Your task to perform on an android device: turn off location history Image 0: 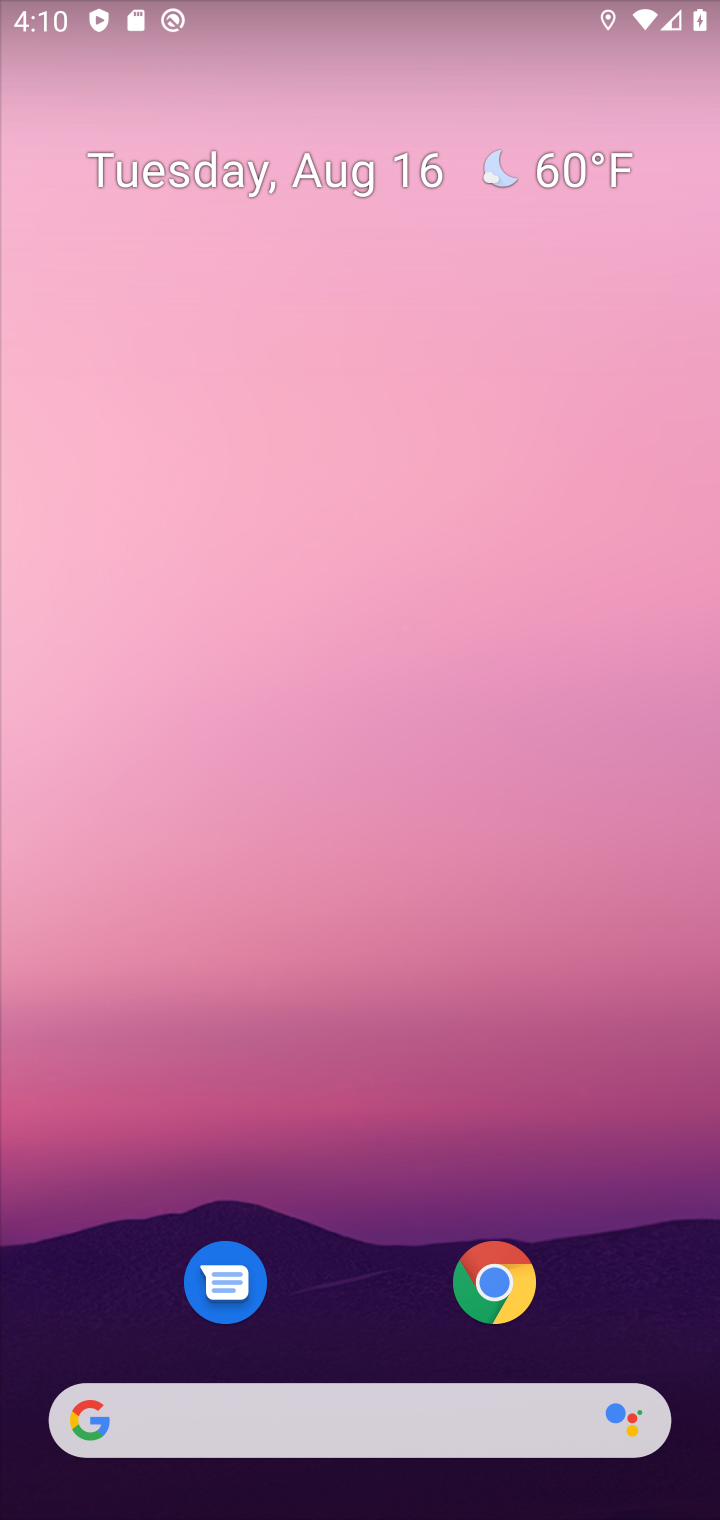
Step 0: drag from (380, 1186) to (594, 167)
Your task to perform on an android device: turn off location history Image 1: 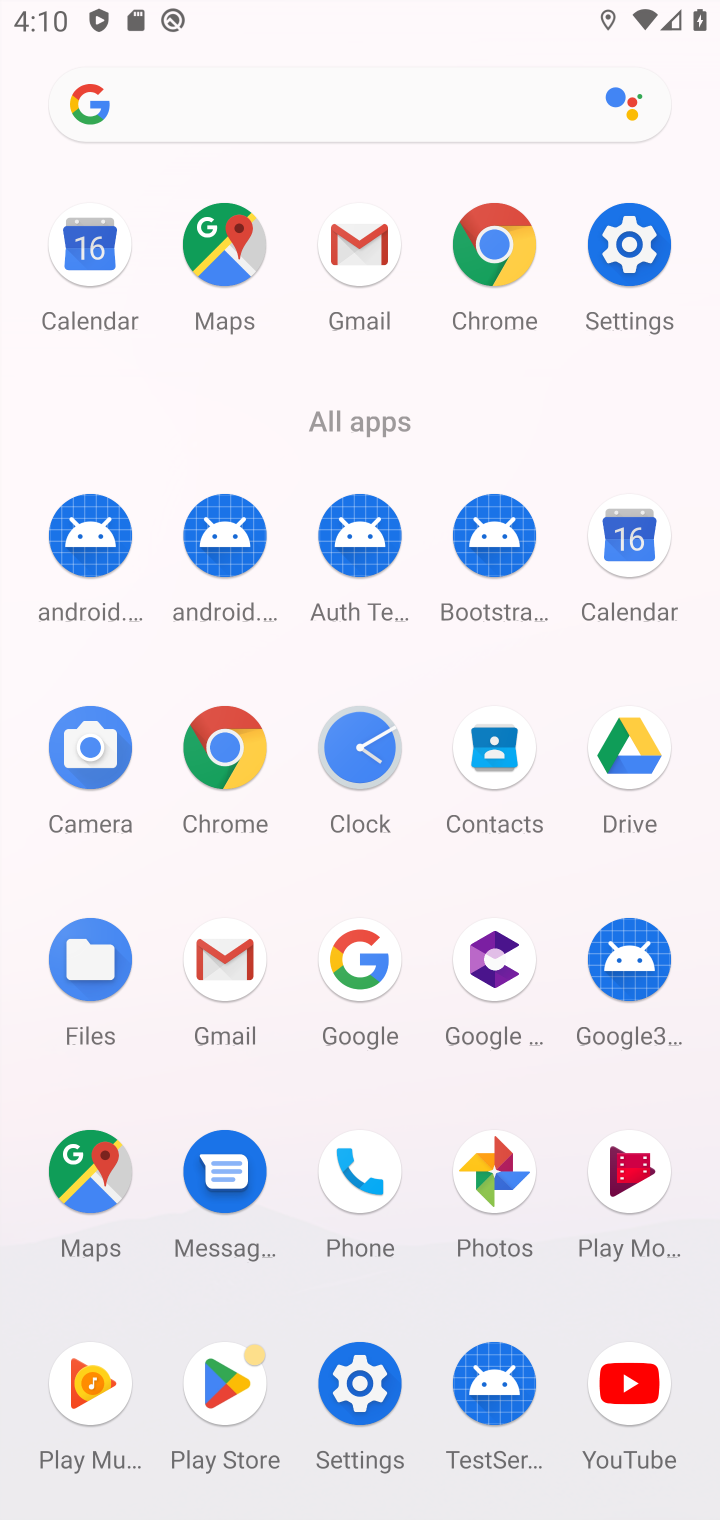
Step 1: click (632, 247)
Your task to perform on an android device: turn off location history Image 2: 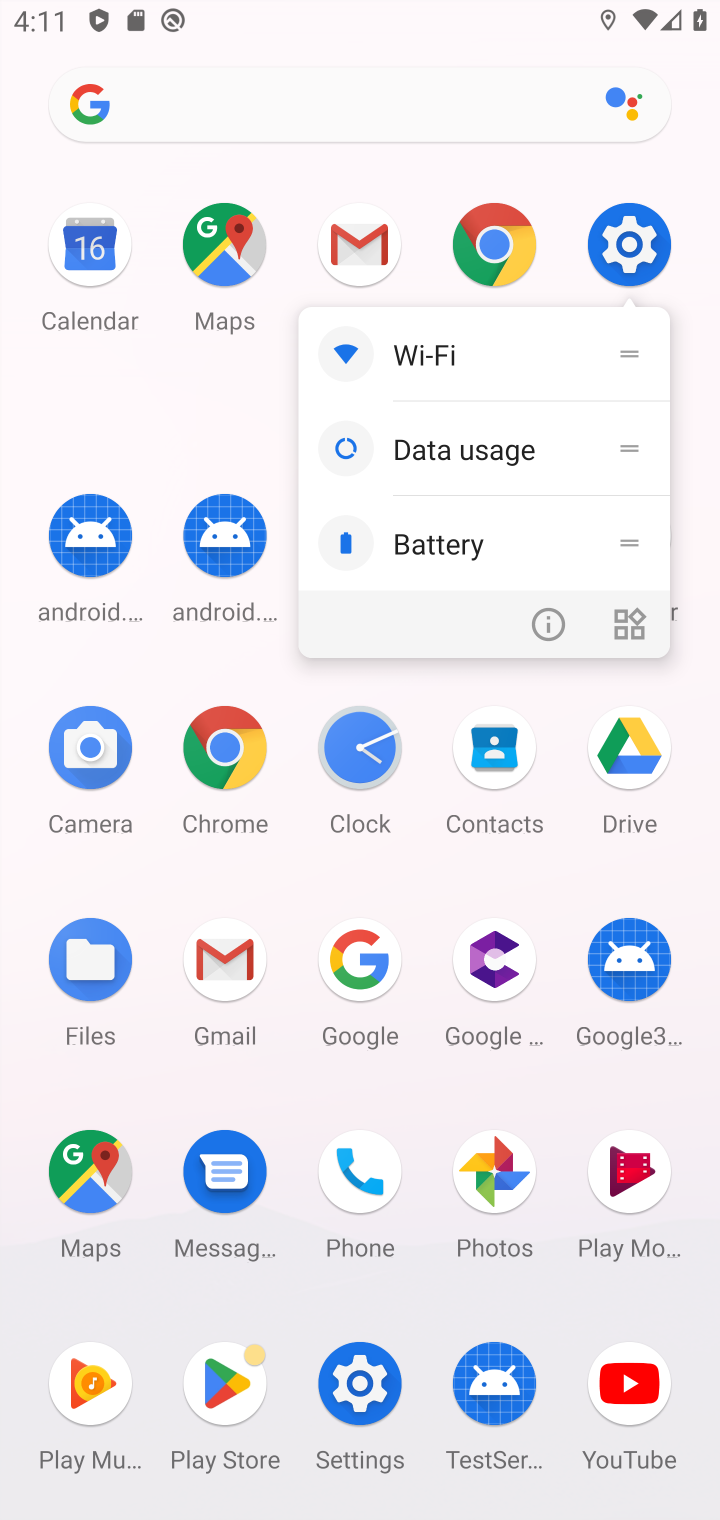
Step 2: click (607, 209)
Your task to perform on an android device: turn off location history Image 3: 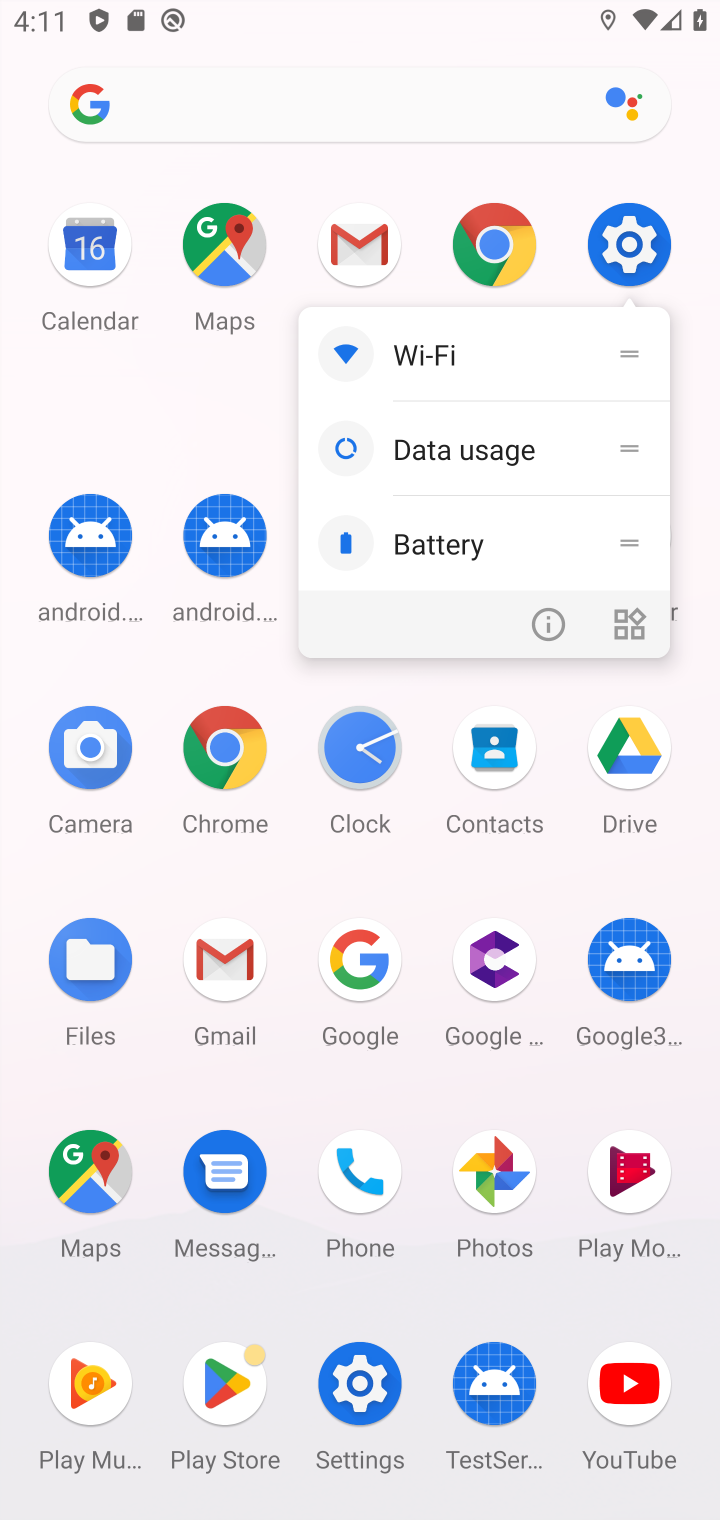
Step 3: click (674, 249)
Your task to perform on an android device: turn off location history Image 4: 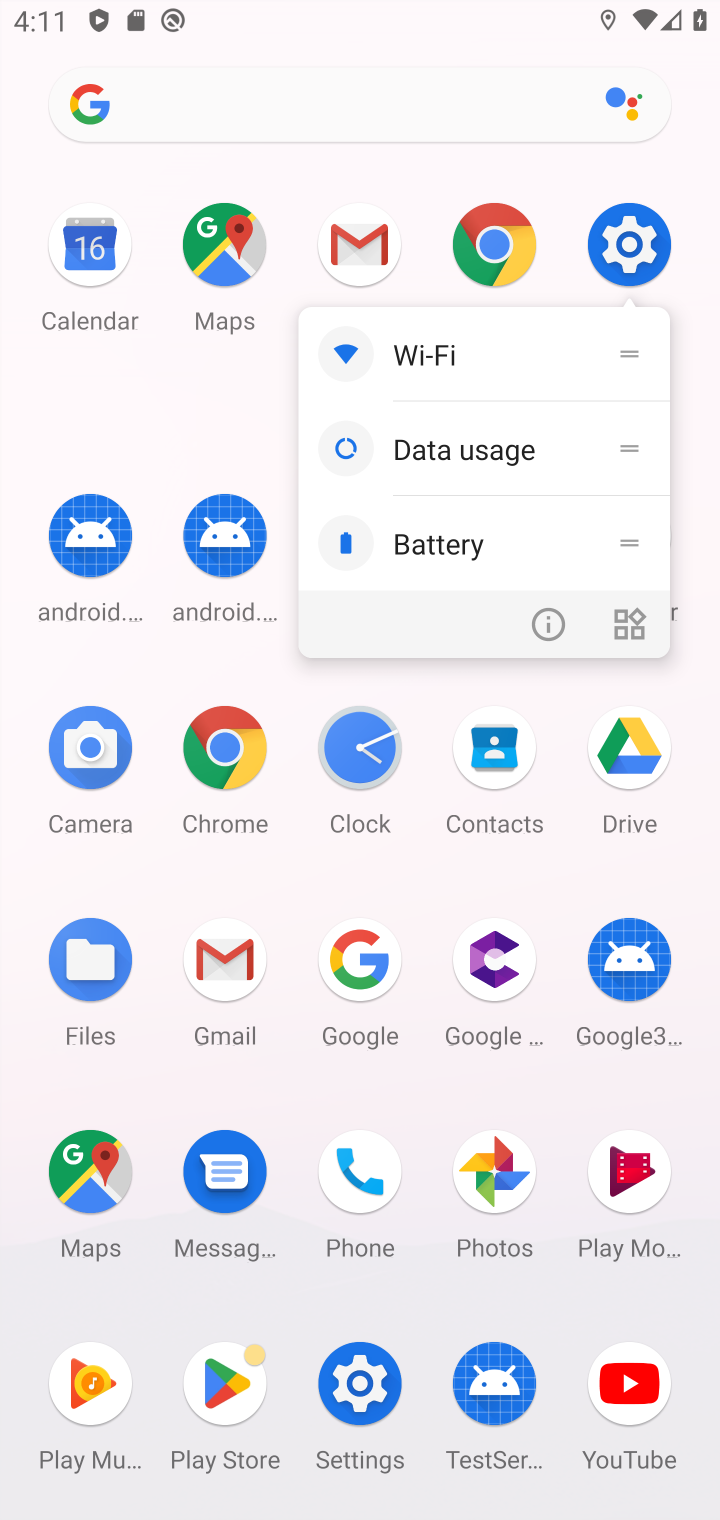
Step 4: click (632, 235)
Your task to perform on an android device: turn off location history Image 5: 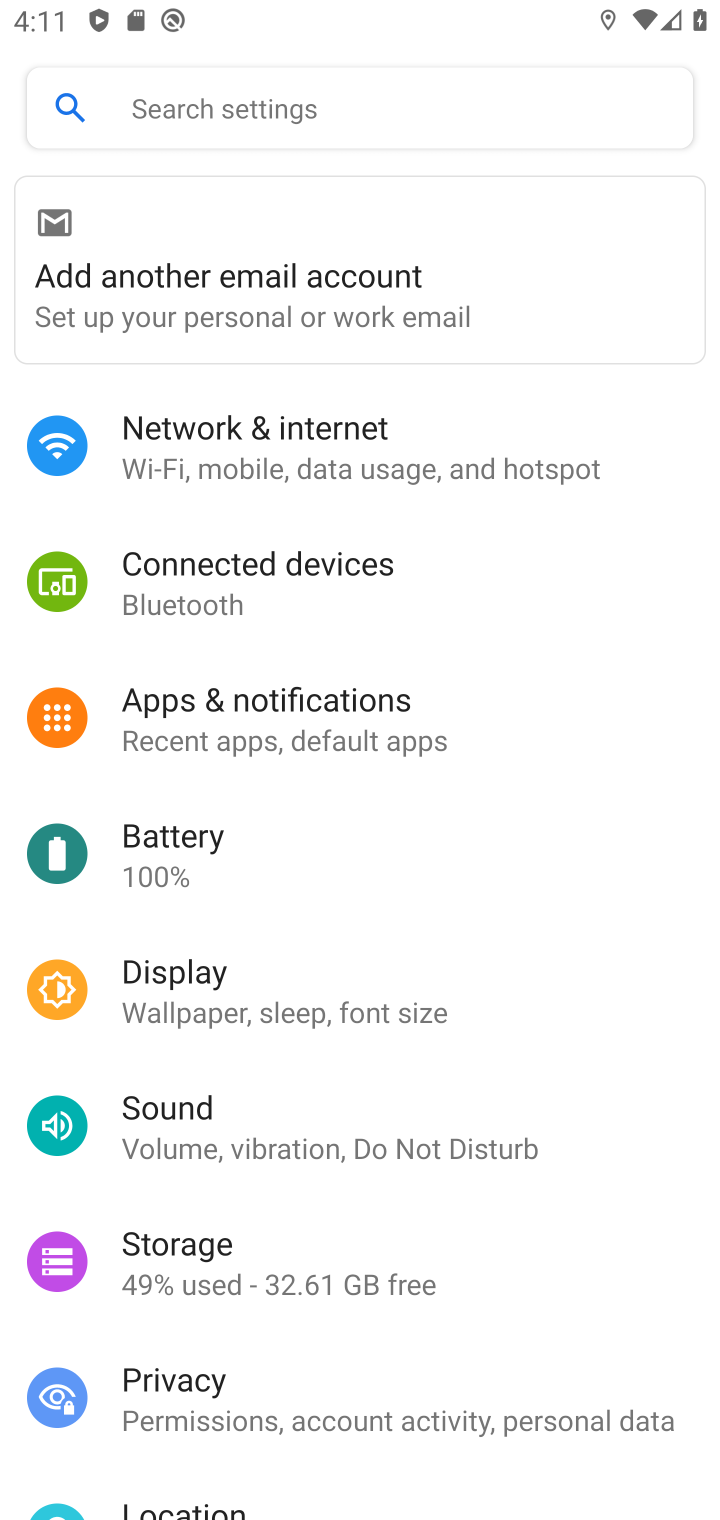
Step 5: click (212, 1493)
Your task to perform on an android device: turn off location history Image 6: 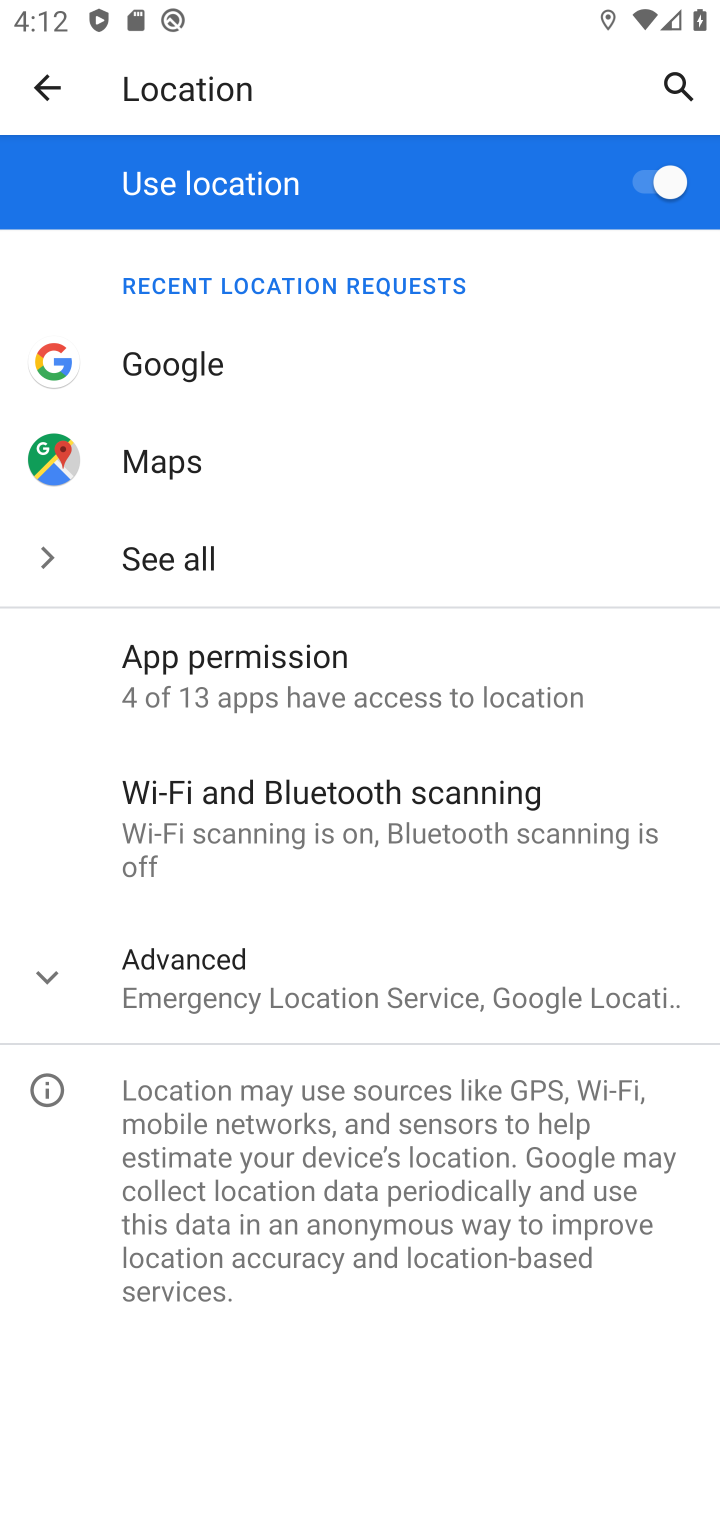
Step 6: click (200, 971)
Your task to perform on an android device: turn off location history Image 7: 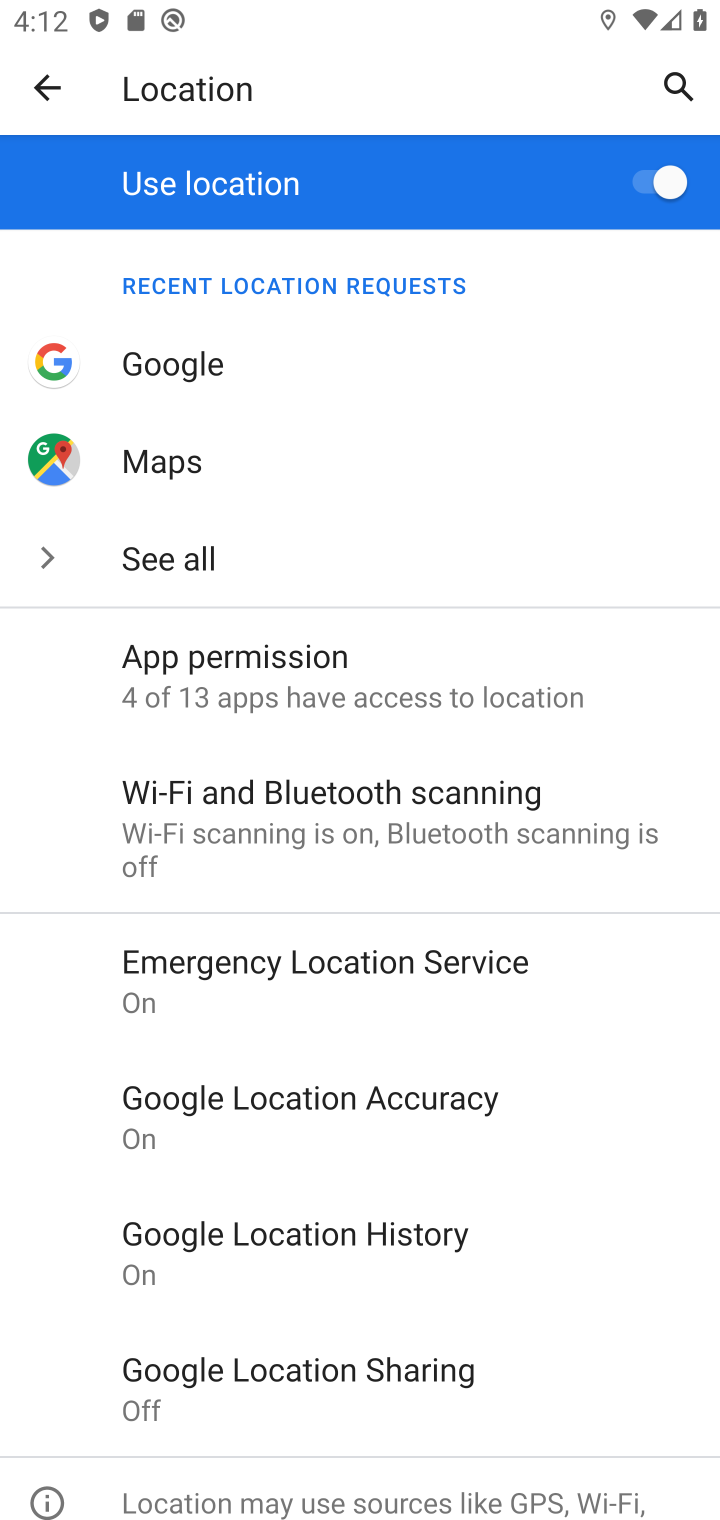
Step 7: click (315, 1240)
Your task to perform on an android device: turn off location history Image 8: 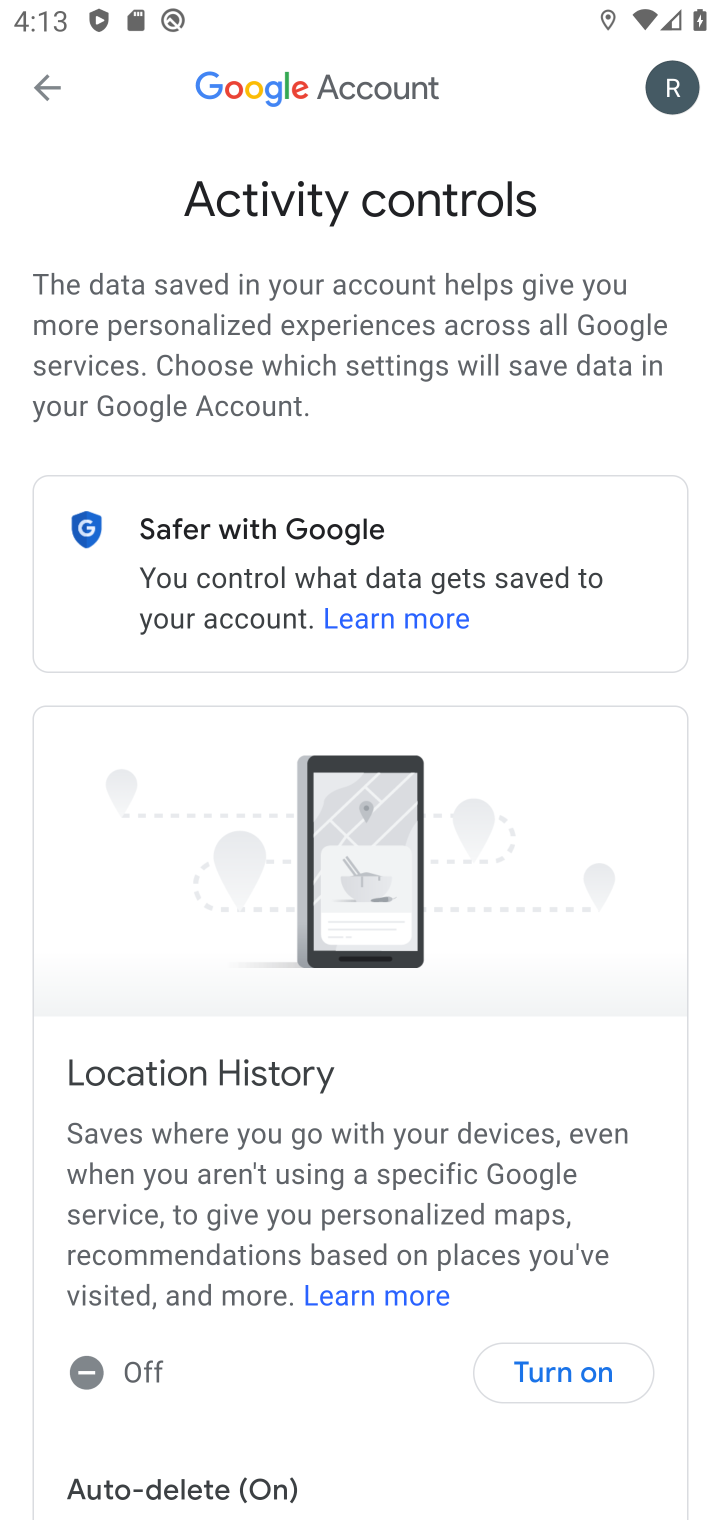
Step 8: task complete